Your task to perform on an android device: delete browsing data in the chrome app Image 0: 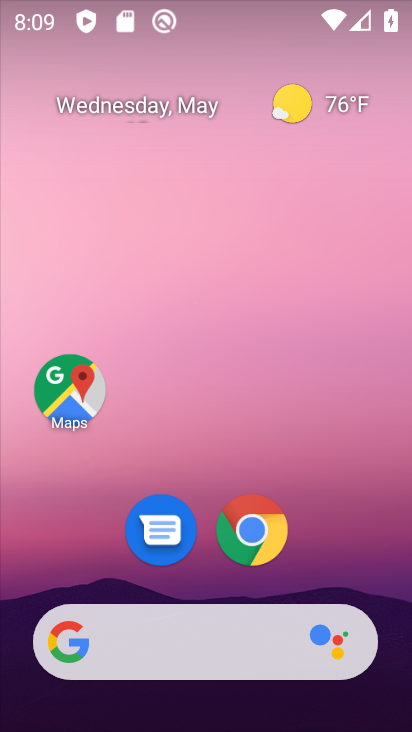
Step 0: drag from (316, 530) to (279, 117)
Your task to perform on an android device: delete browsing data in the chrome app Image 1: 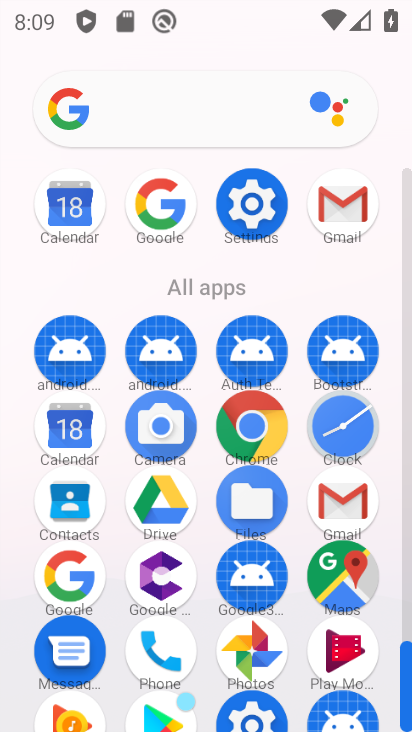
Step 1: click (266, 427)
Your task to perform on an android device: delete browsing data in the chrome app Image 2: 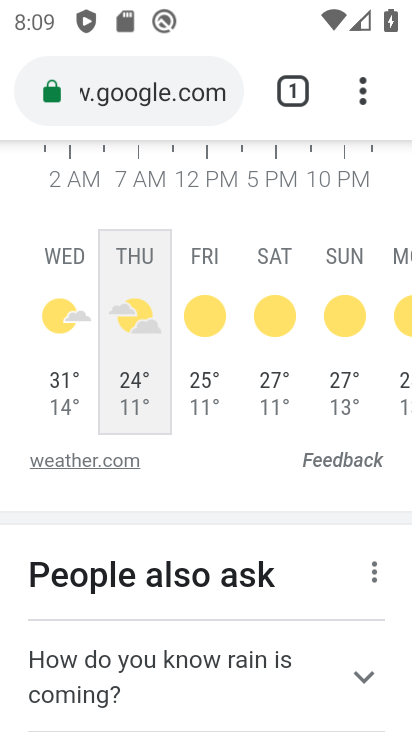
Step 2: click (368, 111)
Your task to perform on an android device: delete browsing data in the chrome app Image 3: 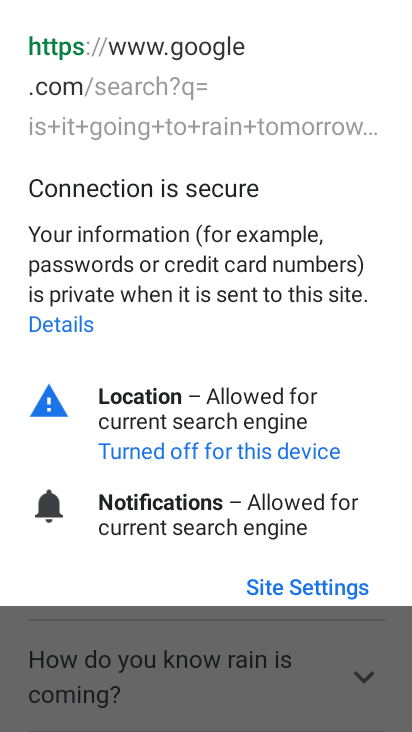
Step 3: click (270, 583)
Your task to perform on an android device: delete browsing data in the chrome app Image 4: 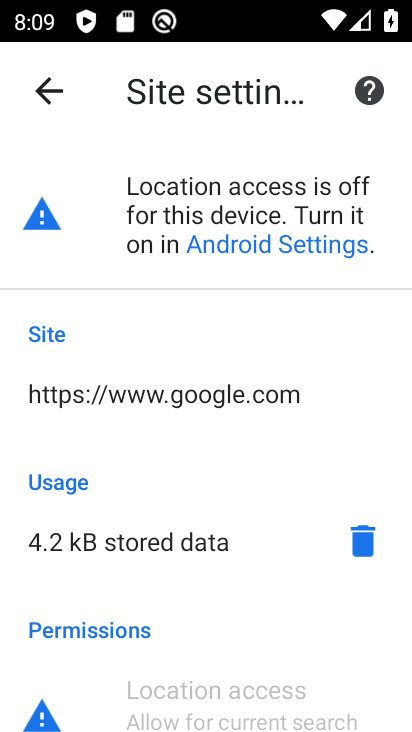
Step 4: click (47, 84)
Your task to perform on an android device: delete browsing data in the chrome app Image 5: 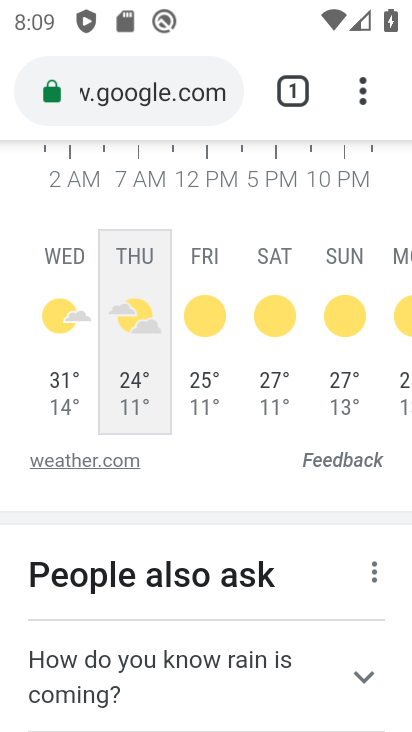
Step 5: drag from (360, 102) to (175, 501)
Your task to perform on an android device: delete browsing data in the chrome app Image 6: 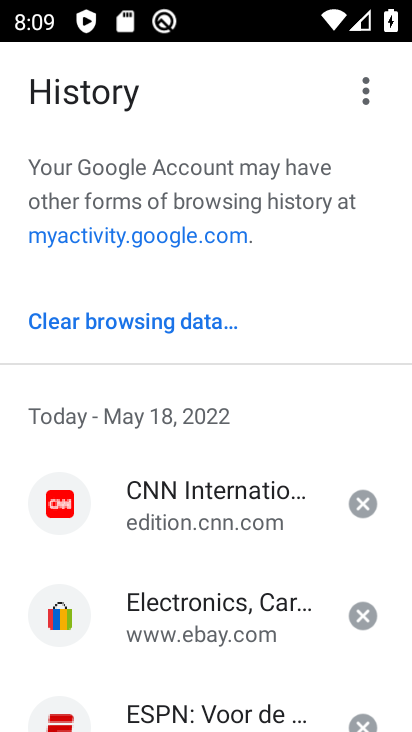
Step 6: click (197, 297)
Your task to perform on an android device: delete browsing data in the chrome app Image 7: 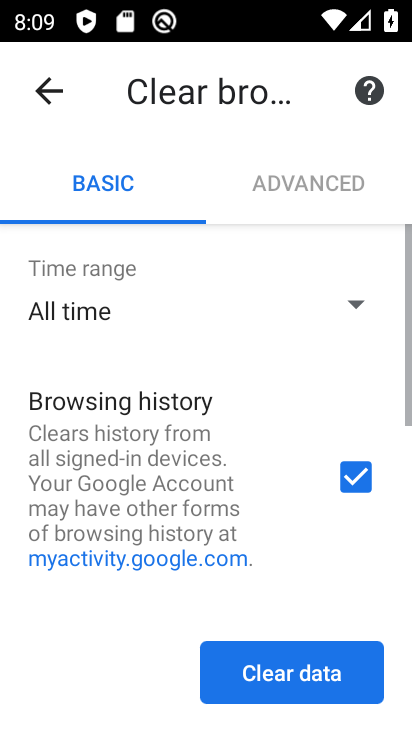
Step 7: click (281, 688)
Your task to perform on an android device: delete browsing data in the chrome app Image 8: 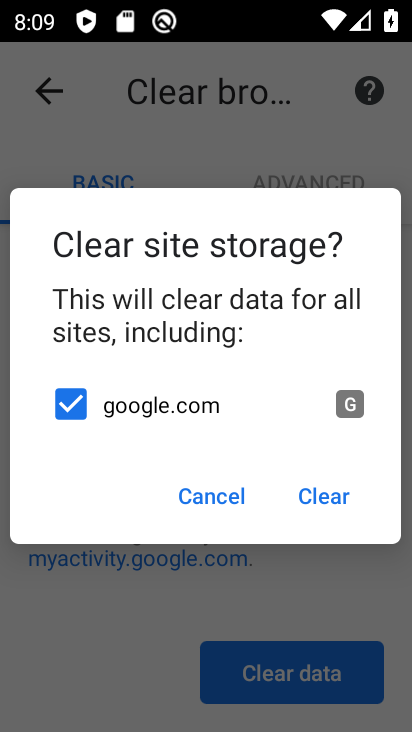
Step 8: click (303, 487)
Your task to perform on an android device: delete browsing data in the chrome app Image 9: 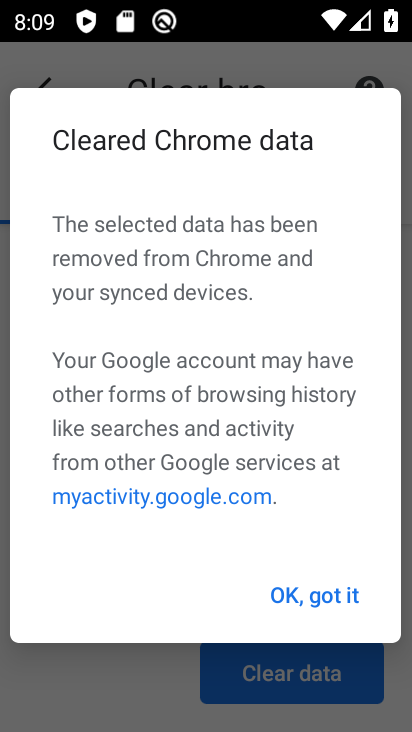
Step 9: task complete